Your task to perform on an android device: turn off sleep mode Image 0: 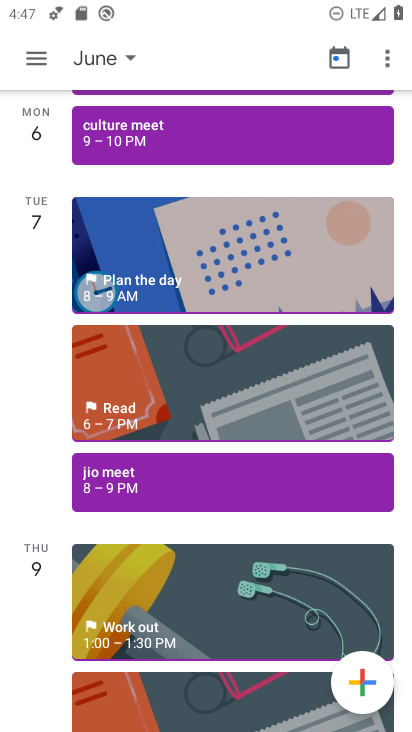
Step 0: press home button
Your task to perform on an android device: turn off sleep mode Image 1: 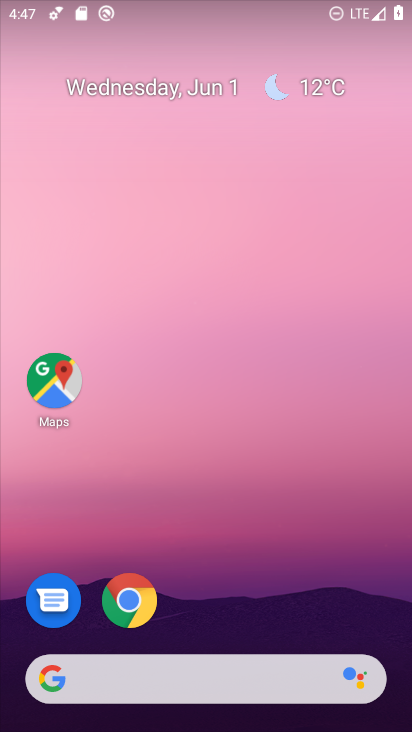
Step 1: drag from (360, 593) to (203, 36)
Your task to perform on an android device: turn off sleep mode Image 2: 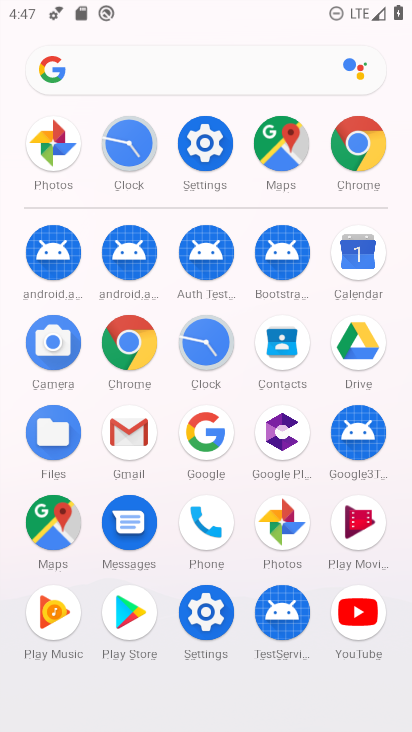
Step 2: click (205, 612)
Your task to perform on an android device: turn off sleep mode Image 3: 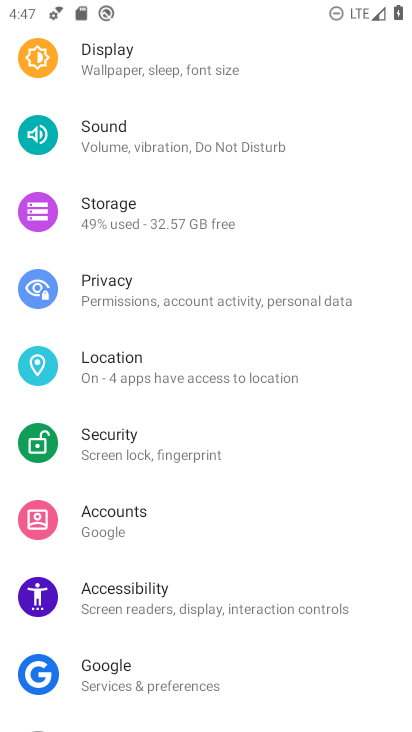
Step 3: drag from (351, 125) to (378, 497)
Your task to perform on an android device: turn off sleep mode Image 4: 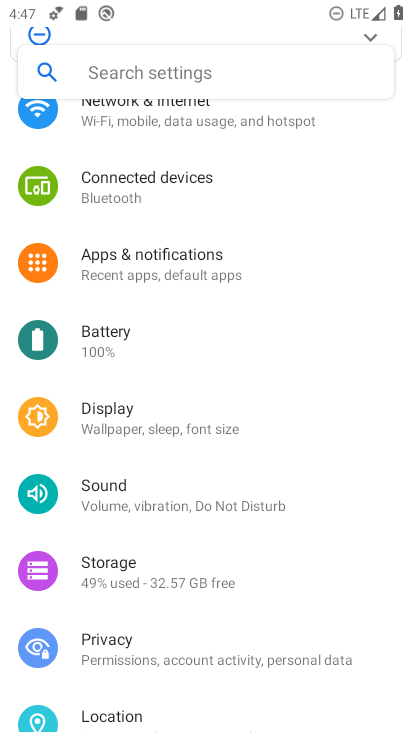
Step 4: click (130, 417)
Your task to perform on an android device: turn off sleep mode Image 5: 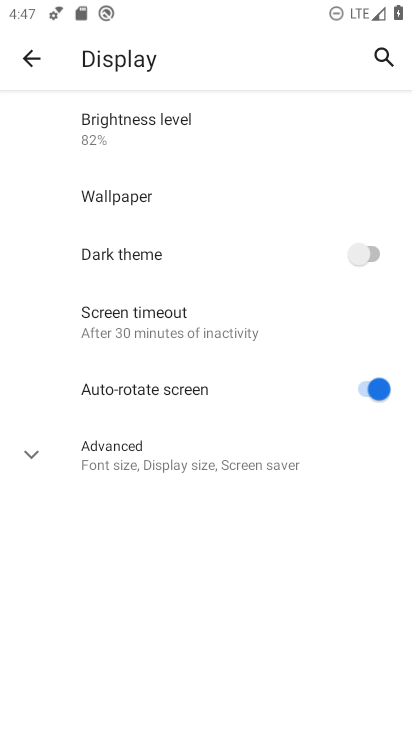
Step 5: click (33, 454)
Your task to perform on an android device: turn off sleep mode Image 6: 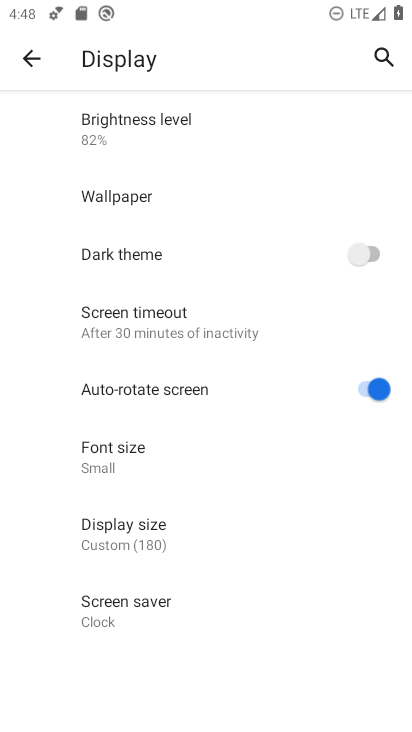
Step 6: task complete